Your task to perform on an android device: Find coffee shops on Maps Image 0: 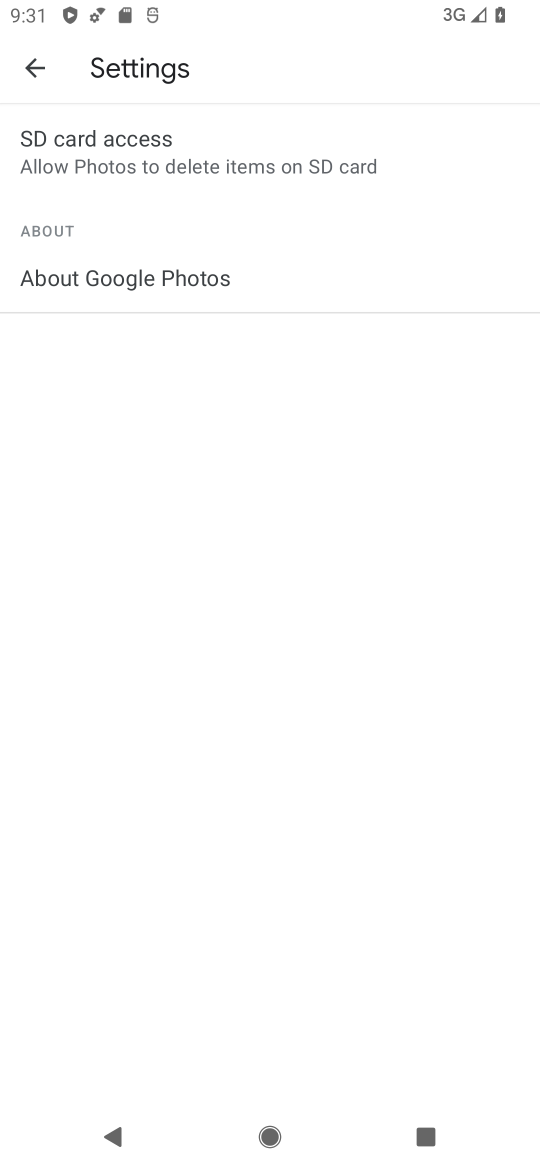
Step 0: press home button
Your task to perform on an android device: Find coffee shops on Maps Image 1: 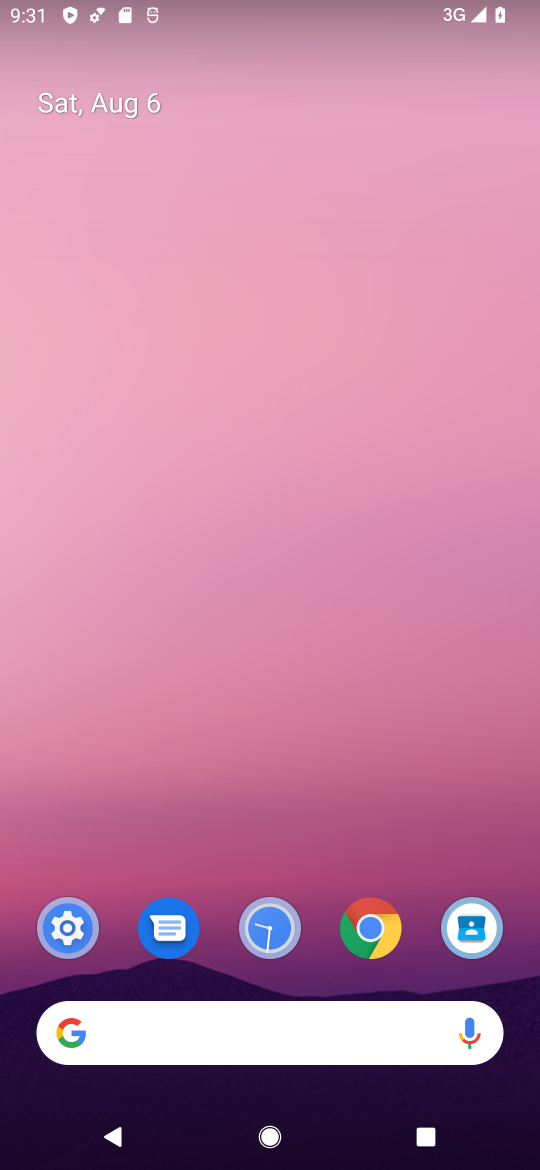
Step 1: drag from (264, 787) to (264, 116)
Your task to perform on an android device: Find coffee shops on Maps Image 2: 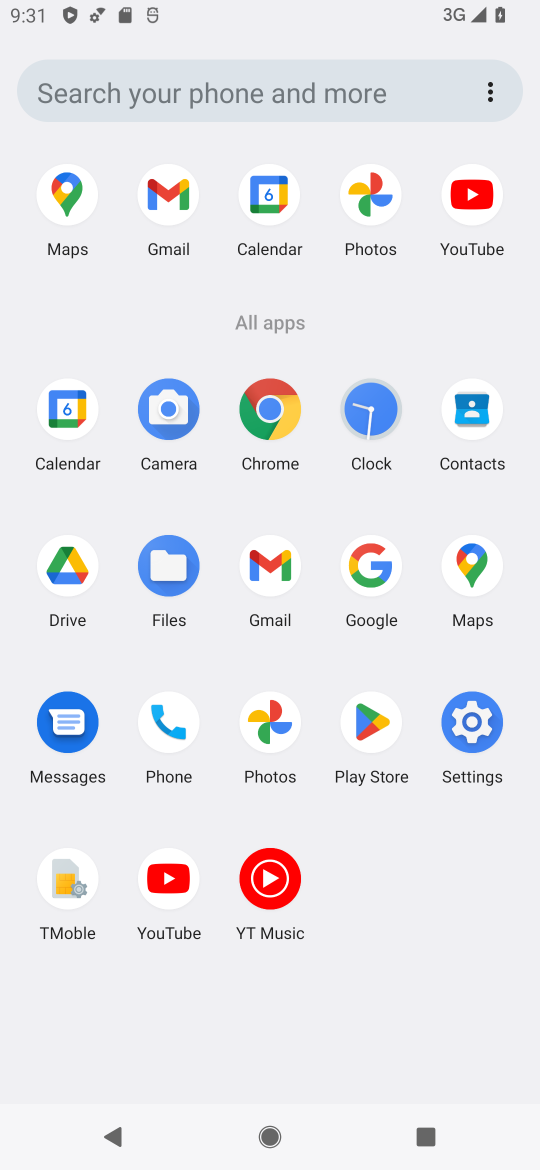
Step 2: click (64, 189)
Your task to perform on an android device: Find coffee shops on Maps Image 3: 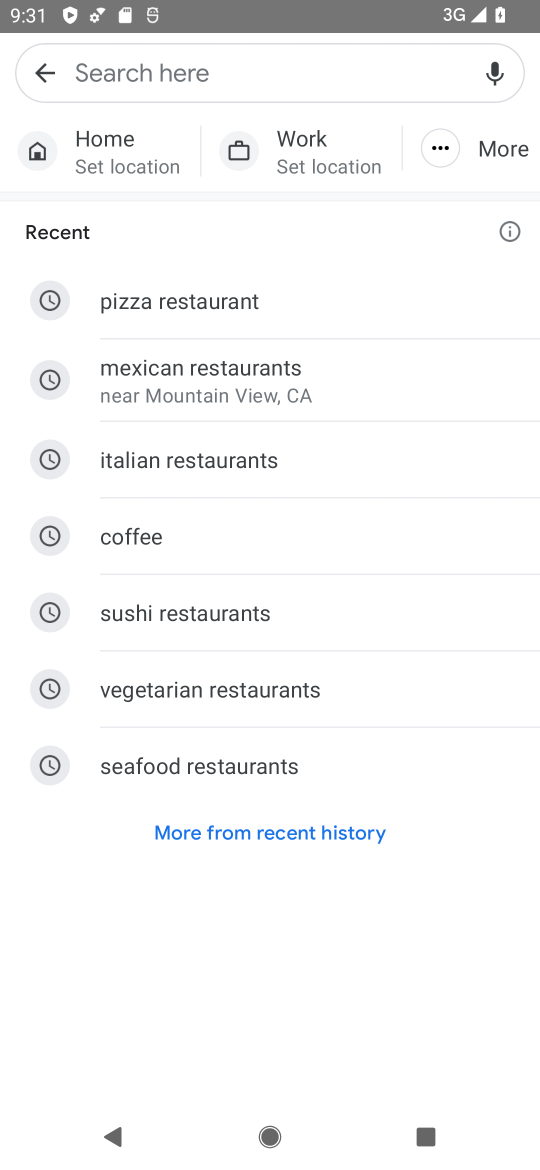
Step 3: click (152, 530)
Your task to perform on an android device: Find coffee shops on Maps Image 4: 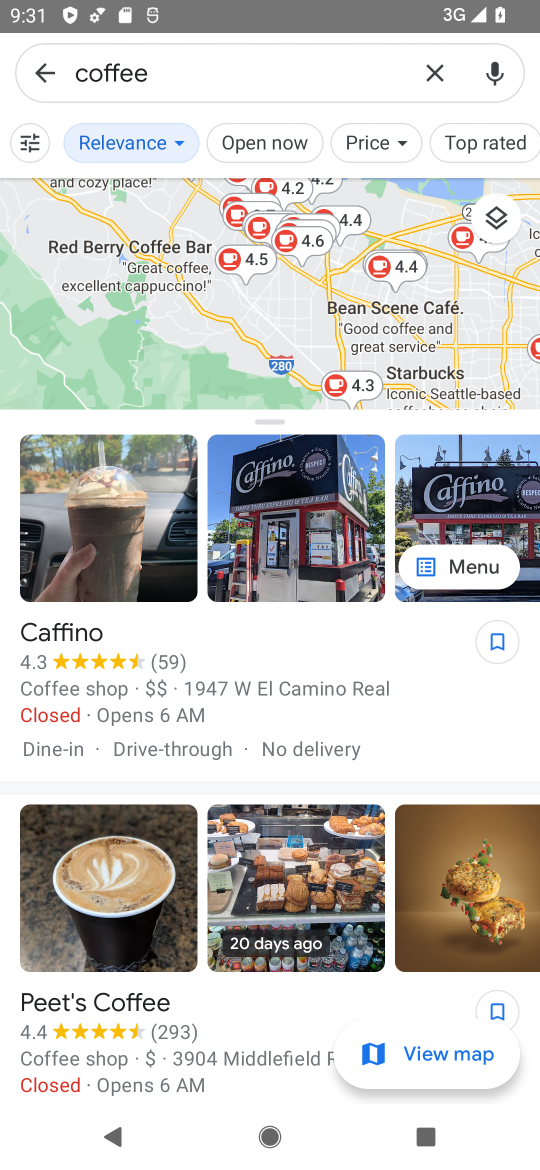
Step 4: task complete